Your task to perform on an android device: Open the map Image 0: 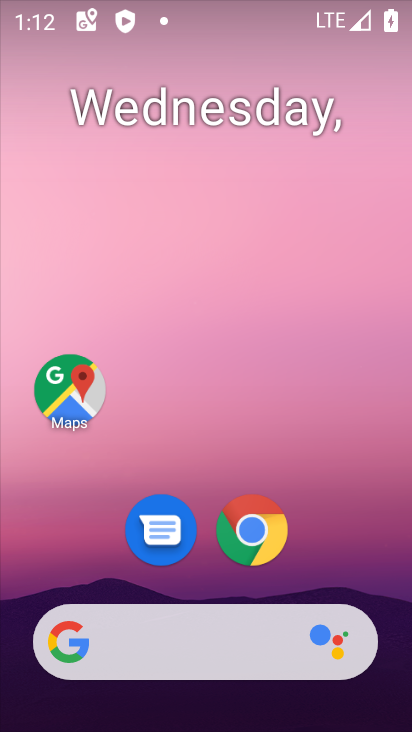
Step 0: drag from (343, 459) to (340, 121)
Your task to perform on an android device: Open the map Image 1: 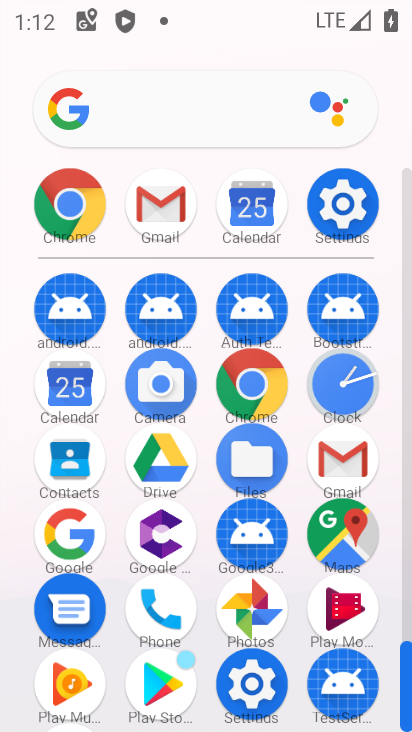
Step 1: click (349, 529)
Your task to perform on an android device: Open the map Image 2: 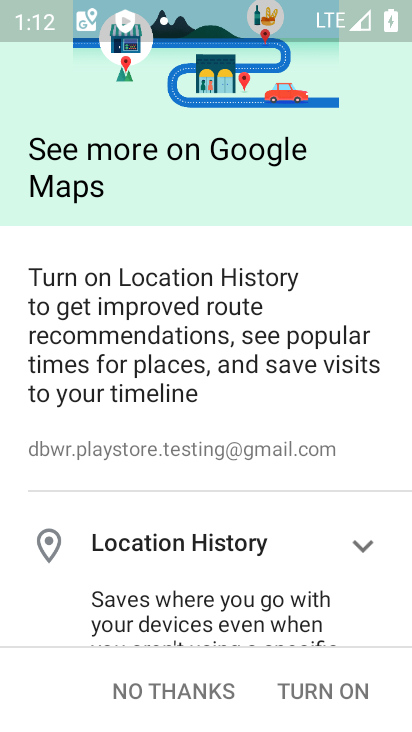
Step 2: click (146, 692)
Your task to perform on an android device: Open the map Image 3: 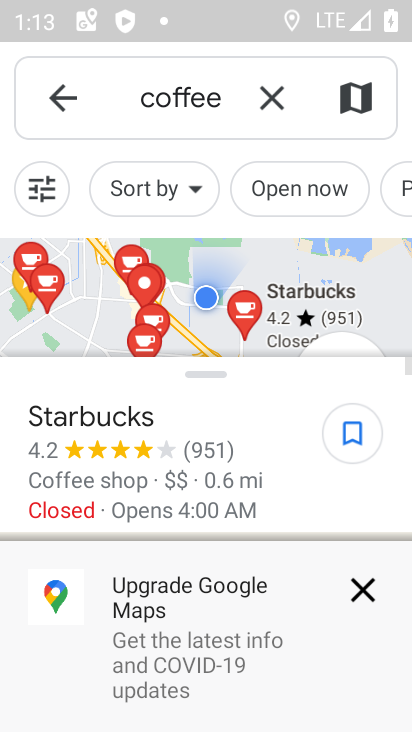
Step 3: click (374, 594)
Your task to perform on an android device: Open the map Image 4: 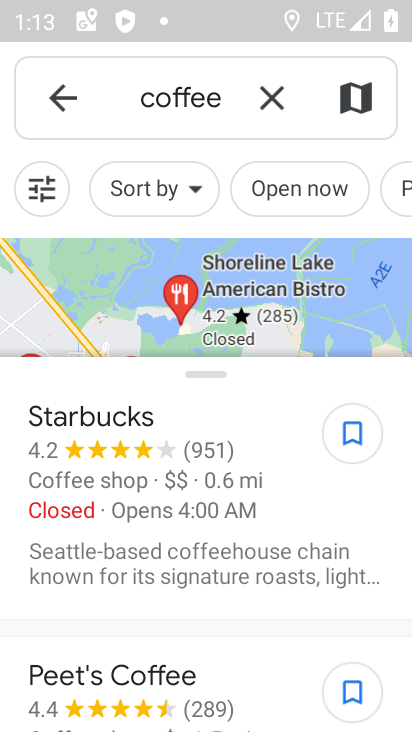
Step 4: task complete